Your task to perform on an android device: Do I have any events this weekend? Image 0: 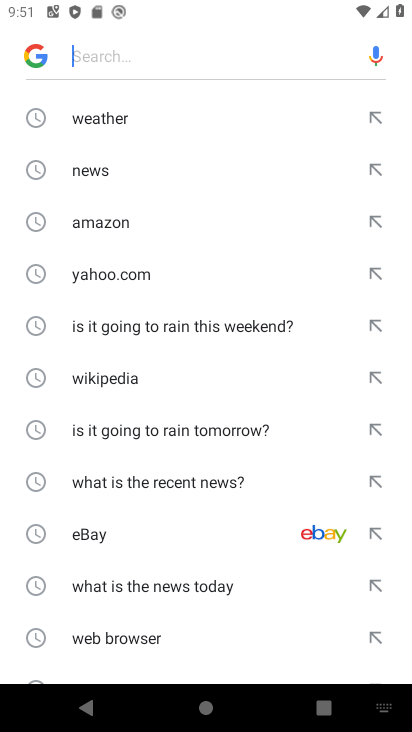
Step 0: press home button
Your task to perform on an android device: Do I have any events this weekend? Image 1: 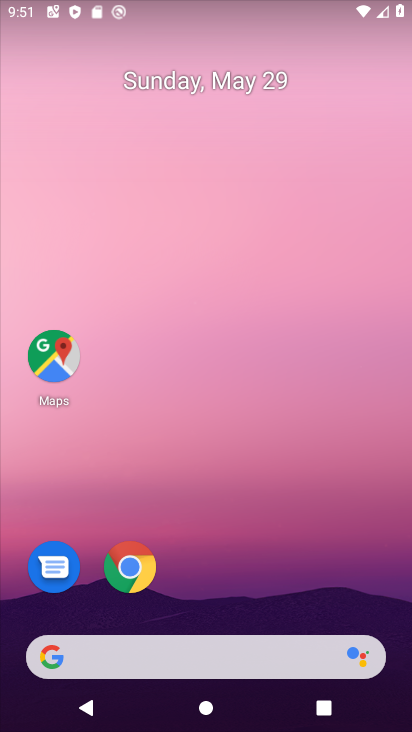
Step 1: drag from (393, 614) to (309, 55)
Your task to perform on an android device: Do I have any events this weekend? Image 2: 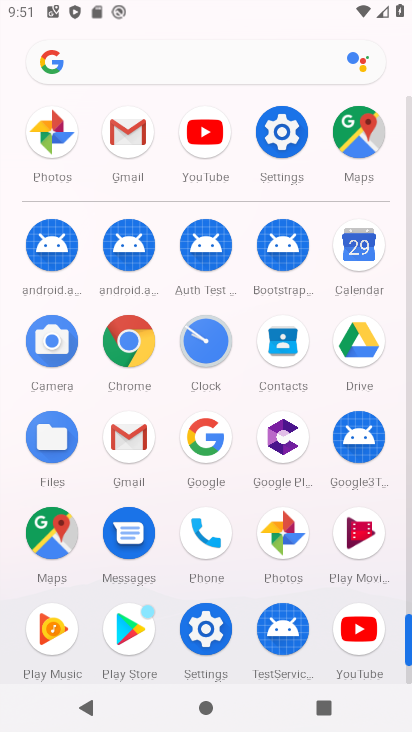
Step 2: click (353, 244)
Your task to perform on an android device: Do I have any events this weekend? Image 3: 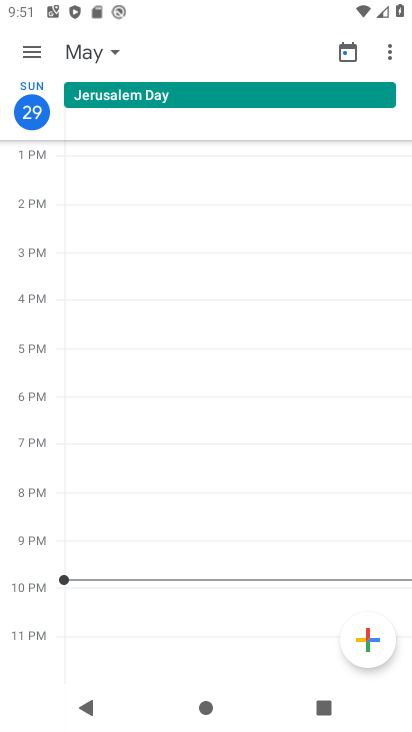
Step 3: click (31, 53)
Your task to perform on an android device: Do I have any events this weekend? Image 4: 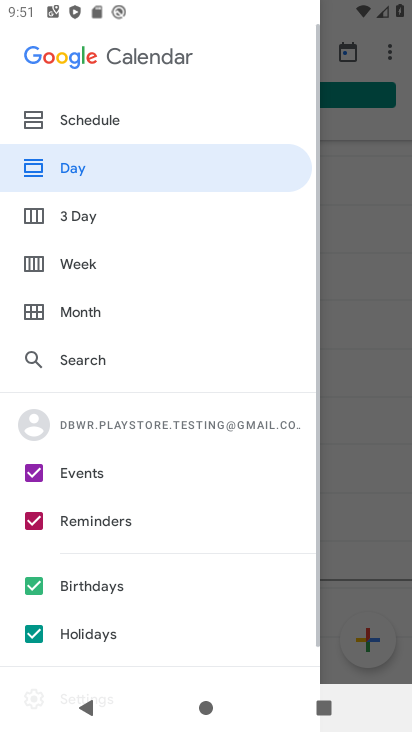
Step 4: click (91, 265)
Your task to perform on an android device: Do I have any events this weekend? Image 5: 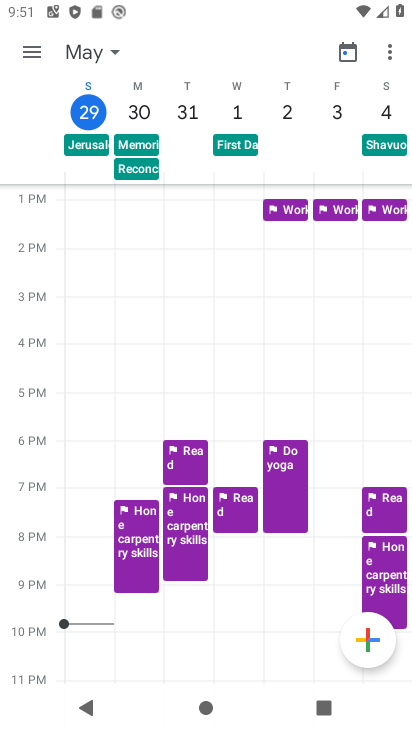
Step 5: task complete